Your task to perform on an android device: check google app version Image 0: 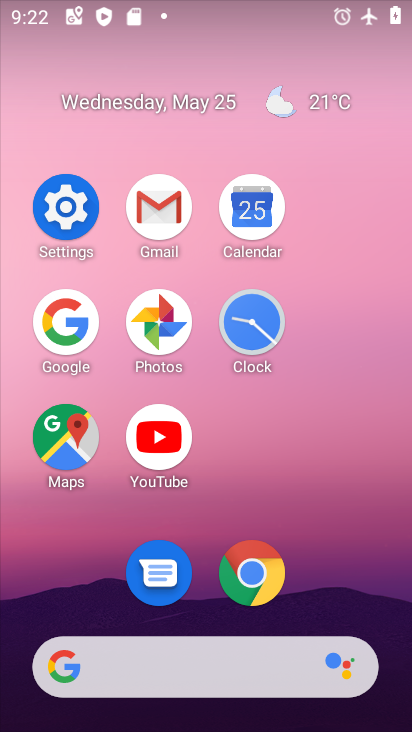
Step 0: click (77, 351)
Your task to perform on an android device: check google app version Image 1: 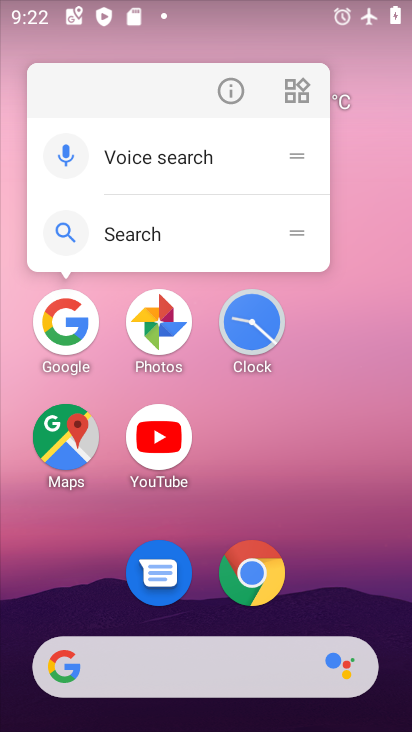
Step 1: click (227, 92)
Your task to perform on an android device: check google app version Image 2: 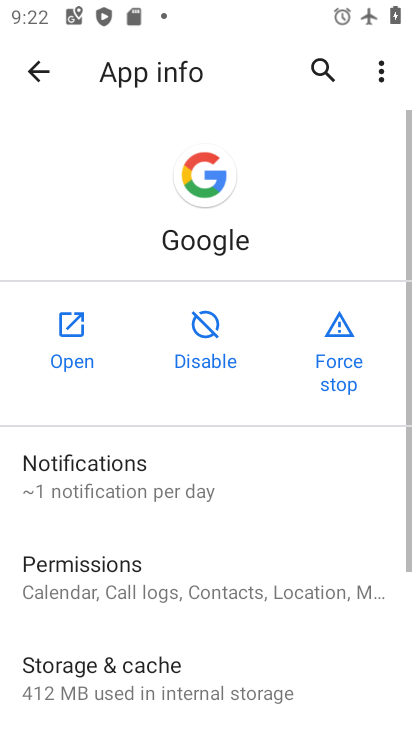
Step 2: drag from (268, 577) to (247, 122)
Your task to perform on an android device: check google app version Image 3: 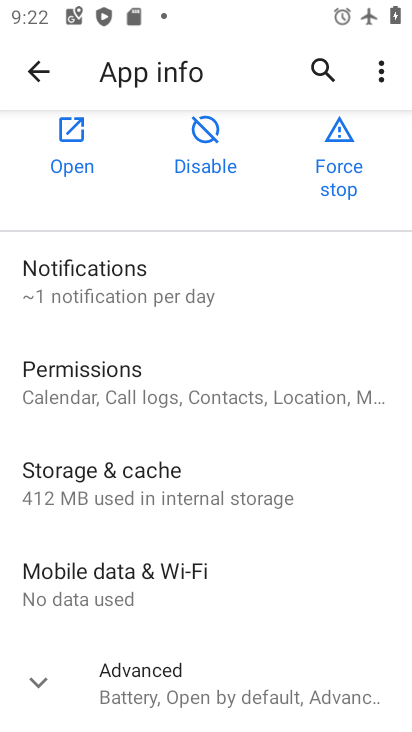
Step 3: click (239, 670)
Your task to perform on an android device: check google app version Image 4: 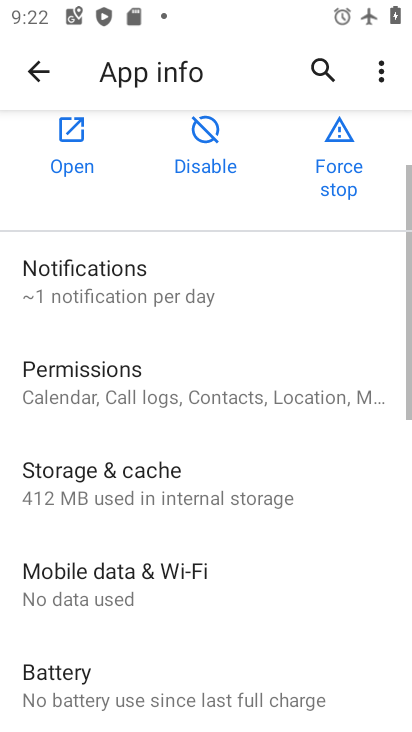
Step 4: task complete